Your task to perform on an android device: Open the web browser Image 0: 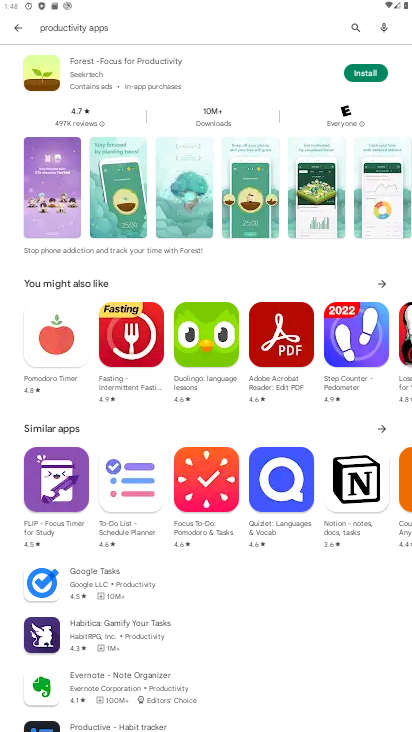
Step 0: press home button
Your task to perform on an android device: Open the web browser Image 1: 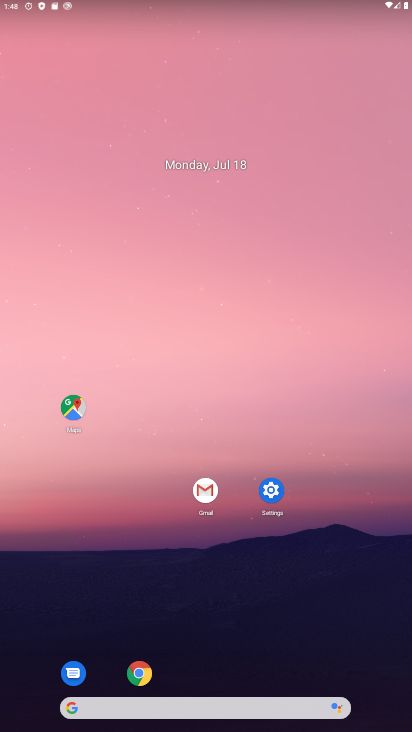
Step 1: click (128, 670)
Your task to perform on an android device: Open the web browser Image 2: 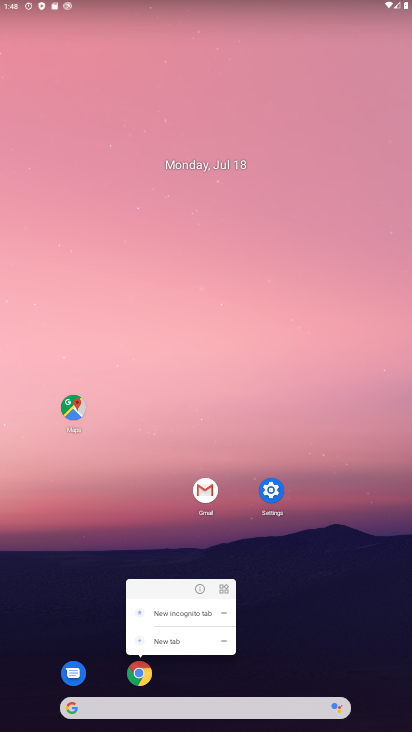
Step 2: click (137, 668)
Your task to perform on an android device: Open the web browser Image 3: 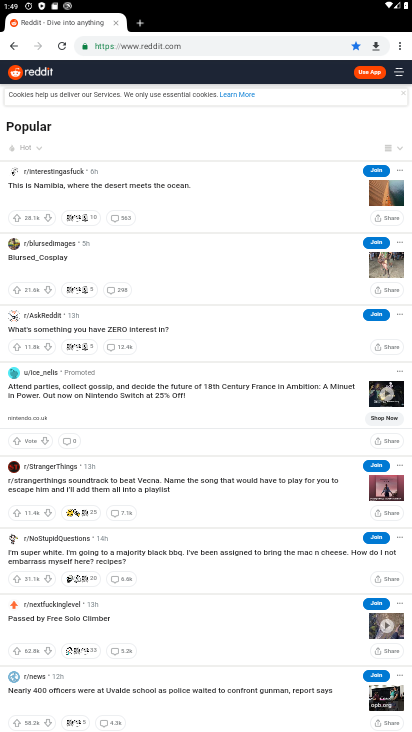
Step 3: click (137, 53)
Your task to perform on an android device: Open the web browser Image 4: 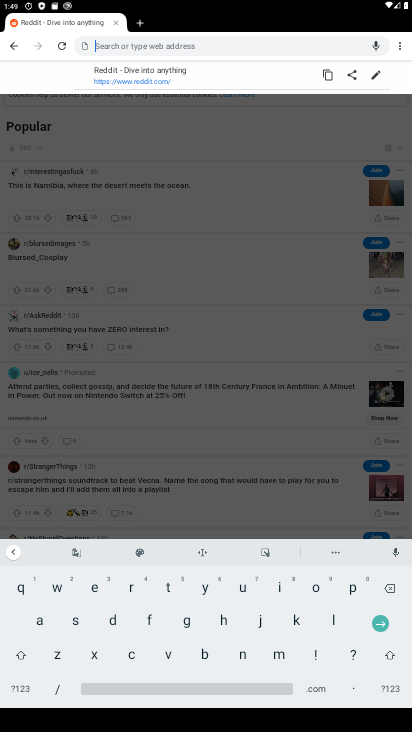
Step 4: task complete